Your task to perform on an android device: Go to CNN.com Image 0: 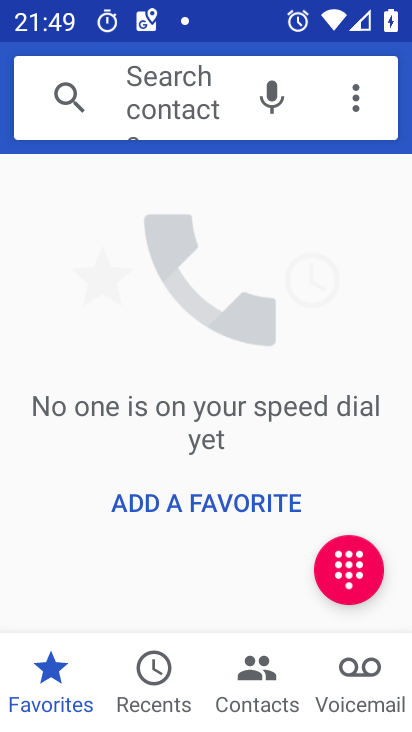
Step 0: press home button
Your task to perform on an android device: Go to CNN.com Image 1: 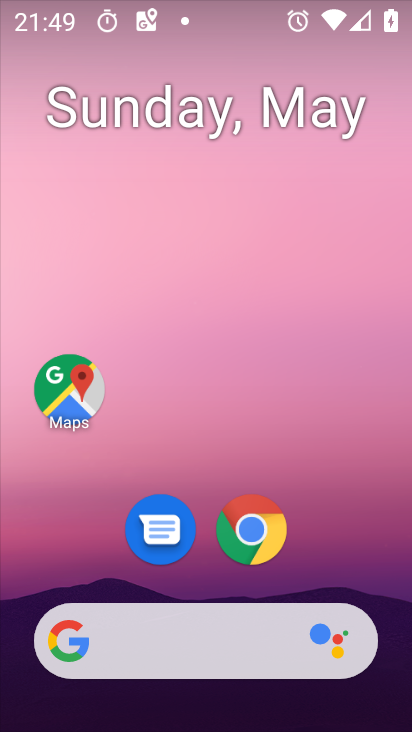
Step 1: click (259, 529)
Your task to perform on an android device: Go to CNN.com Image 2: 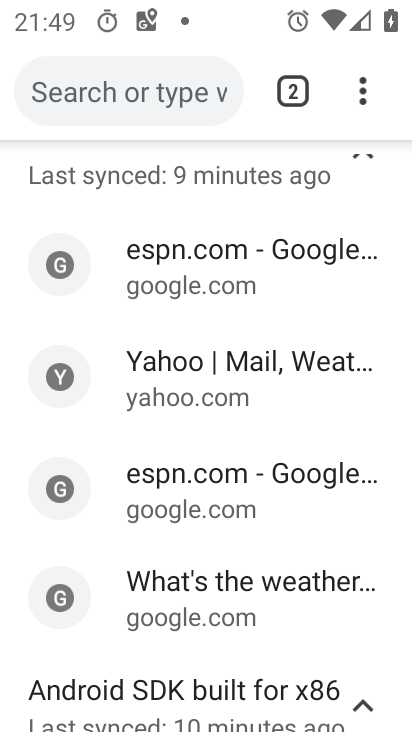
Step 2: click (67, 109)
Your task to perform on an android device: Go to CNN.com Image 3: 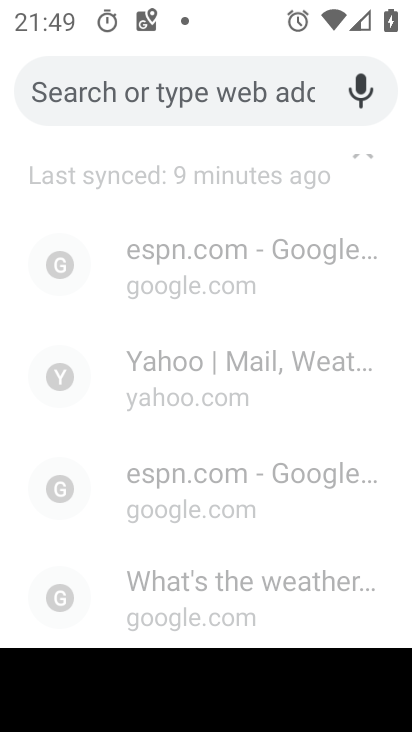
Step 3: type "cnn.com"
Your task to perform on an android device: Go to CNN.com Image 4: 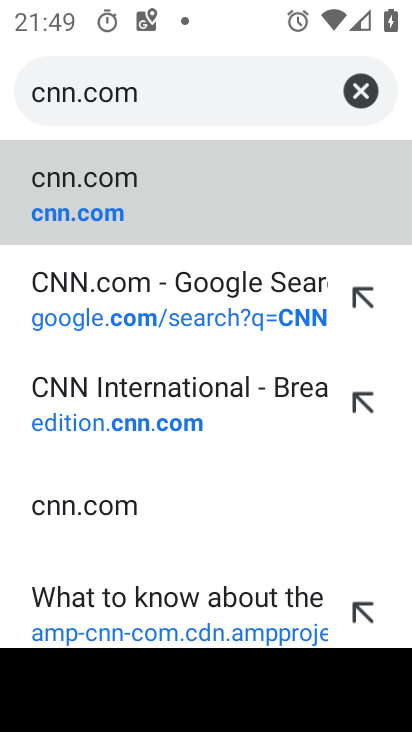
Step 4: click (70, 212)
Your task to perform on an android device: Go to CNN.com Image 5: 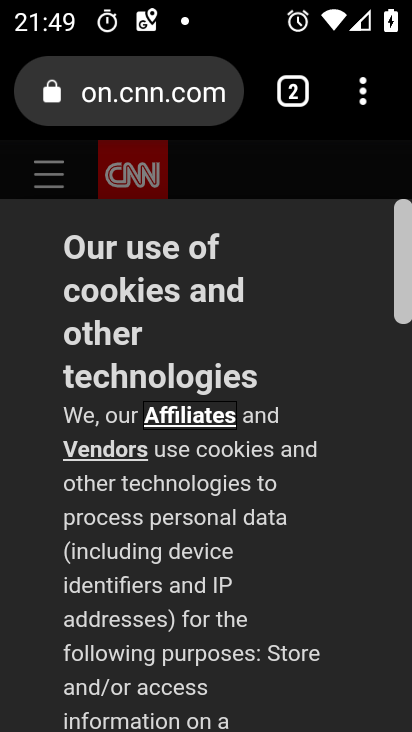
Step 5: task complete